Your task to perform on an android device: Open settings Image 0: 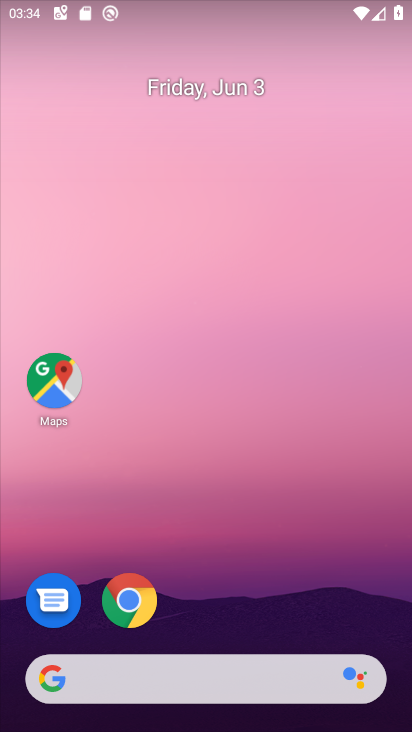
Step 0: drag from (305, 581) to (264, 226)
Your task to perform on an android device: Open settings Image 1: 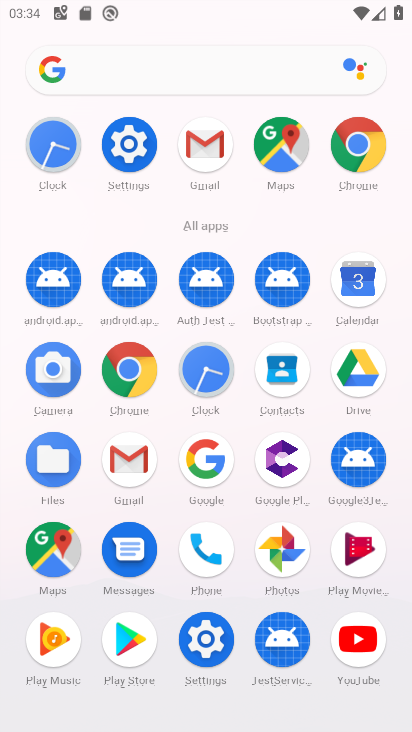
Step 1: click (115, 141)
Your task to perform on an android device: Open settings Image 2: 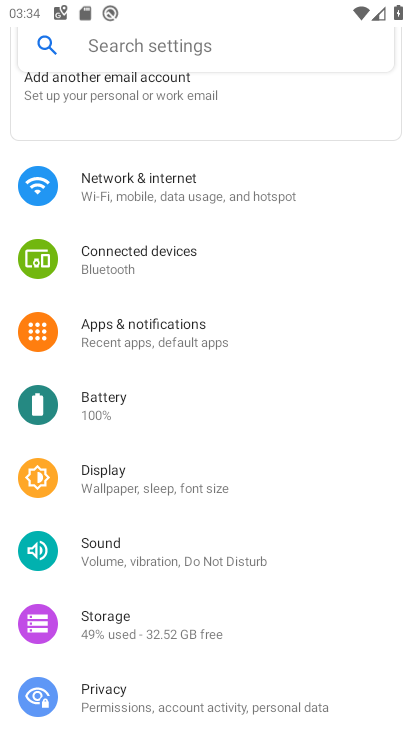
Step 2: task complete